Your task to perform on an android device: Open Yahoo.com Image 0: 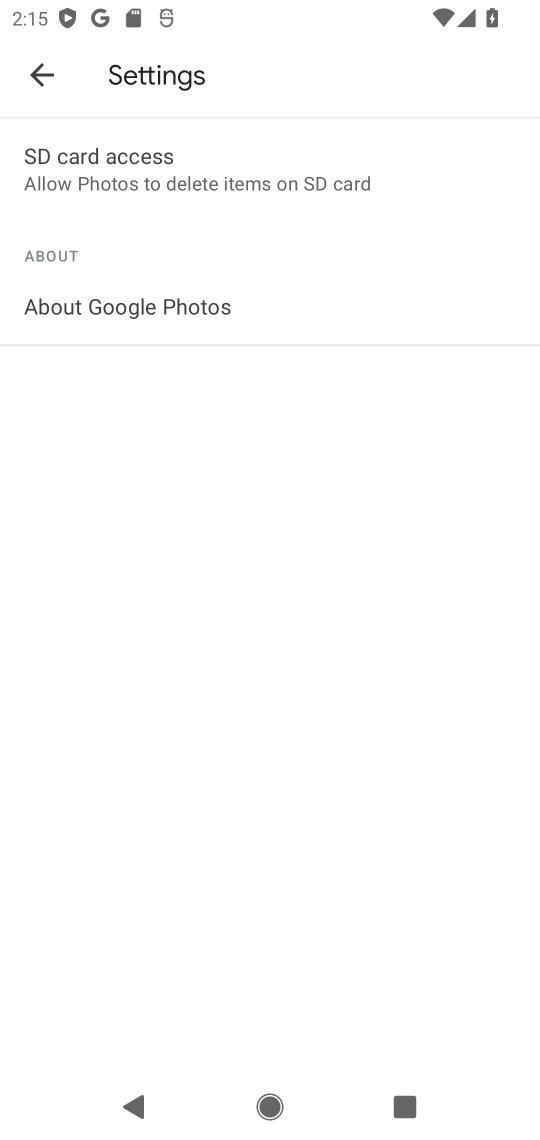
Step 0: press home button
Your task to perform on an android device: Open Yahoo.com Image 1: 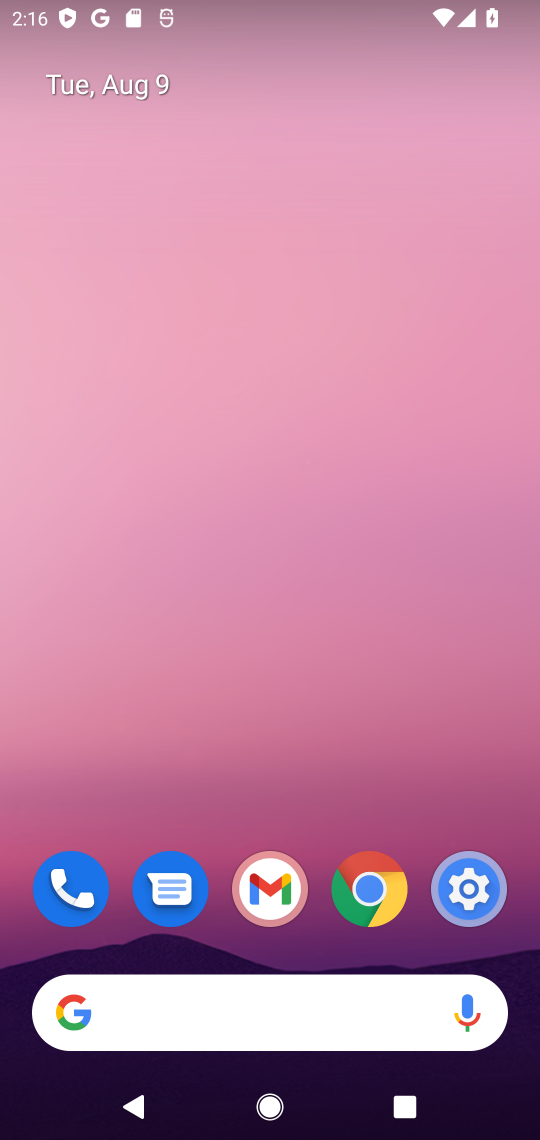
Step 1: click (245, 1006)
Your task to perform on an android device: Open Yahoo.com Image 2: 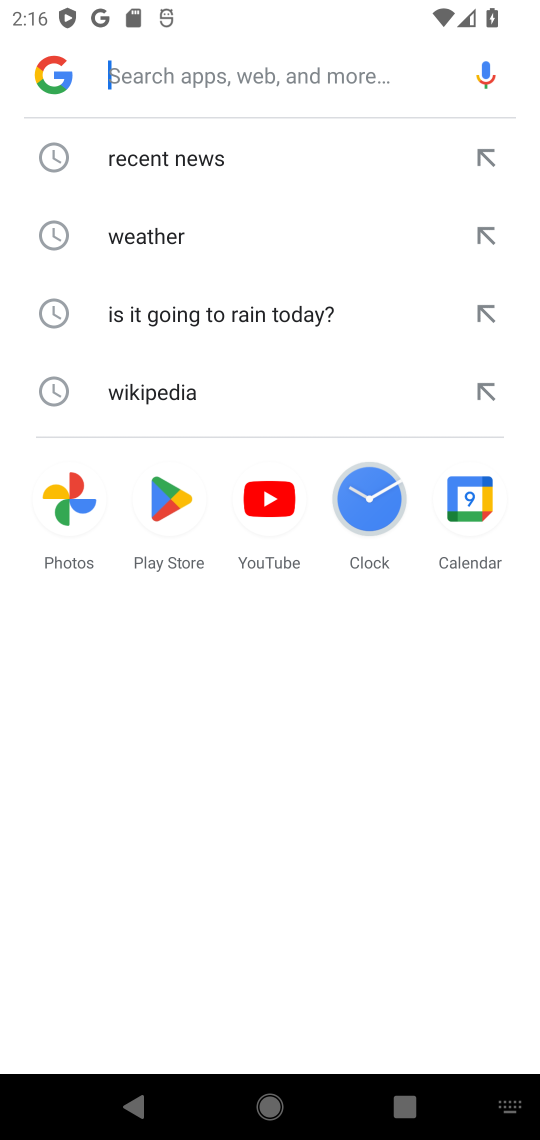
Step 2: type "yahoo.com"
Your task to perform on an android device: Open Yahoo.com Image 3: 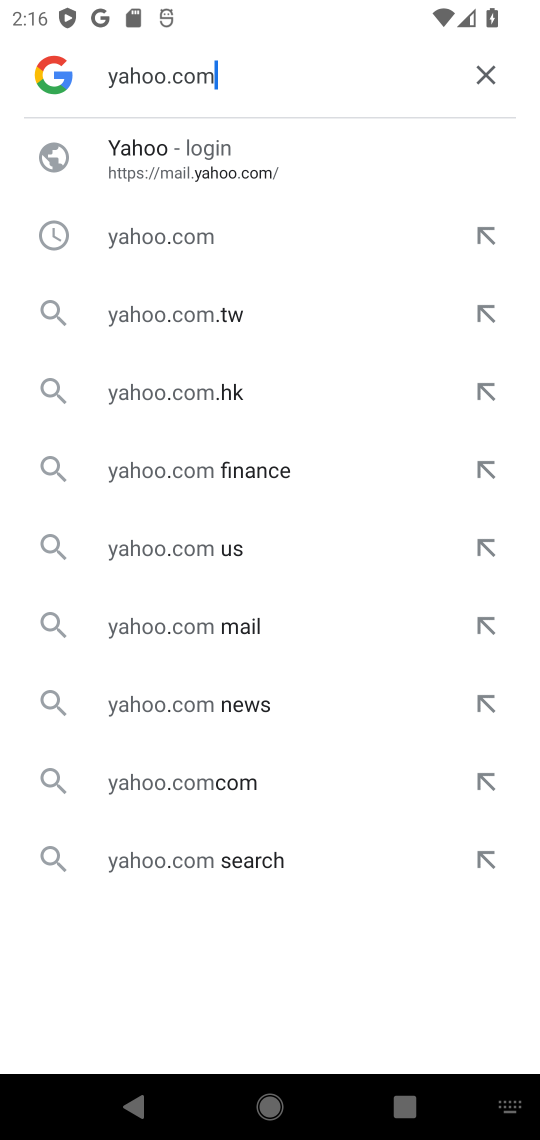
Step 3: click (202, 235)
Your task to perform on an android device: Open Yahoo.com Image 4: 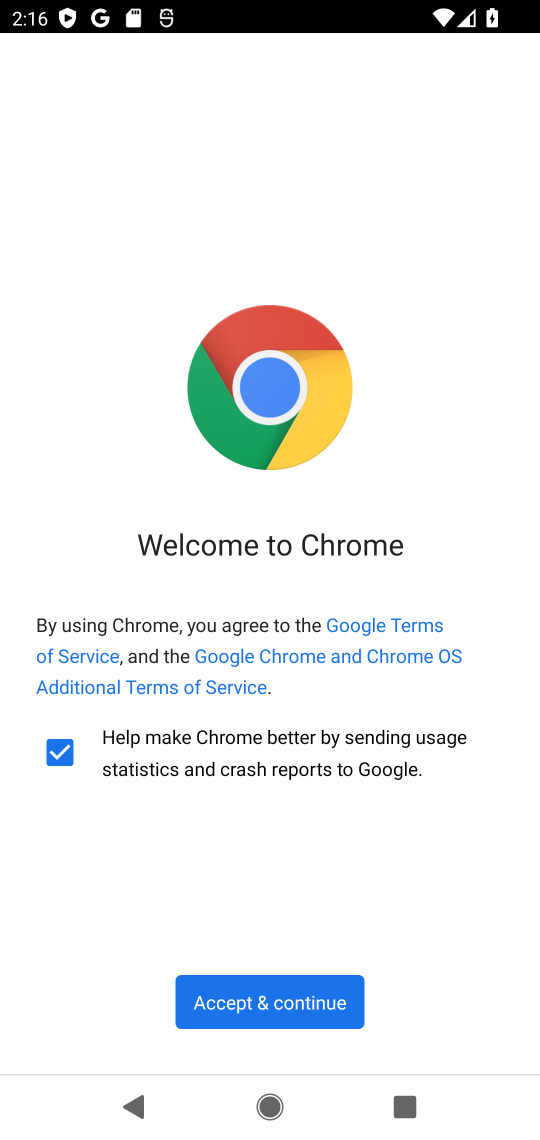
Step 4: click (285, 995)
Your task to perform on an android device: Open Yahoo.com Image 5: 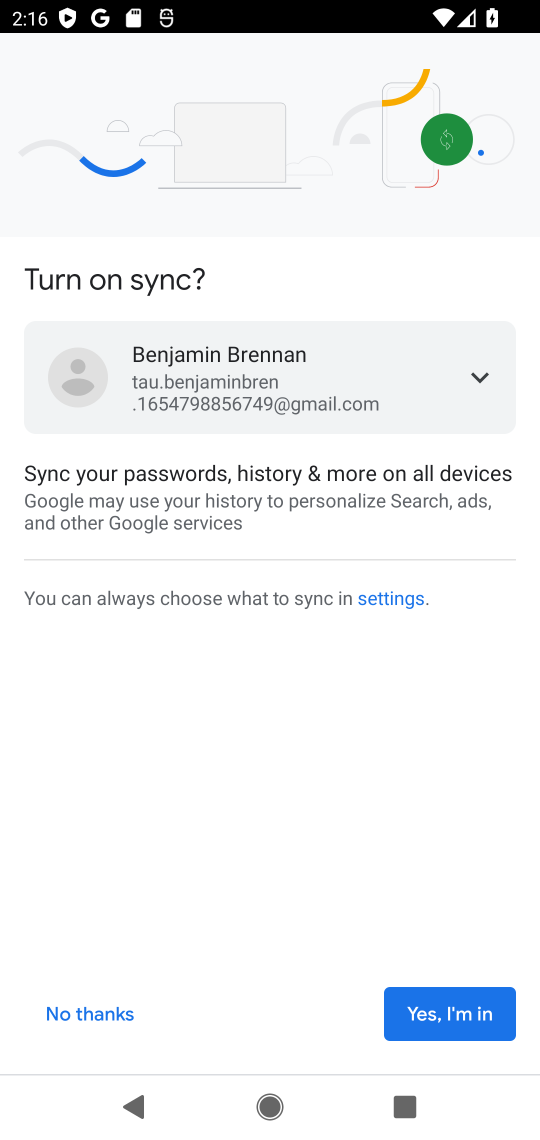
Step 5: click (417, 1021)
Your task to perform on an android device: Open Yahoo.com Image 6: 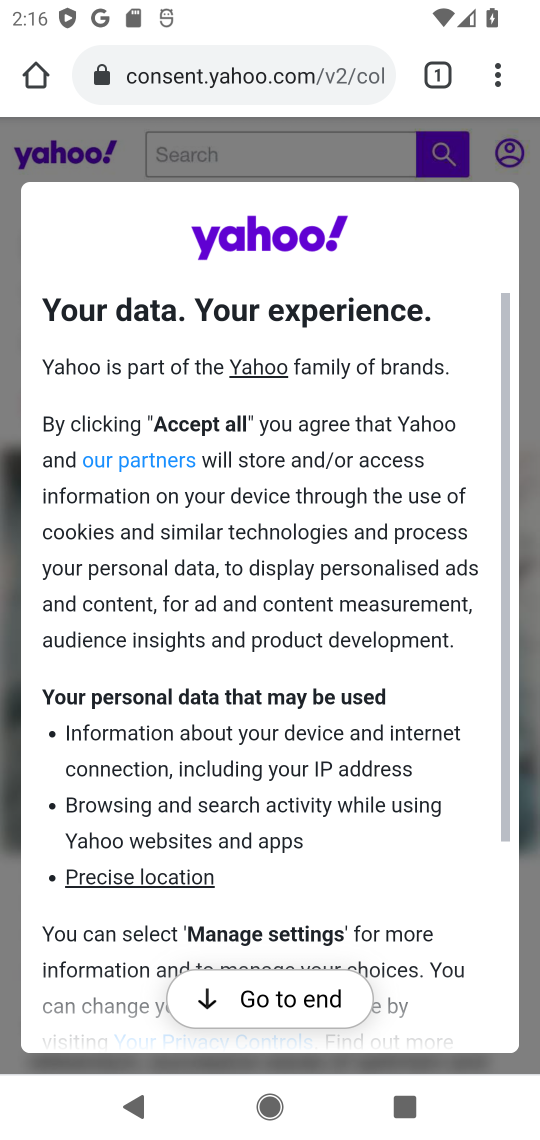
Step 6: click (325, 988)
Your task to perform on an android device: Open Yahoo.com Image 7: 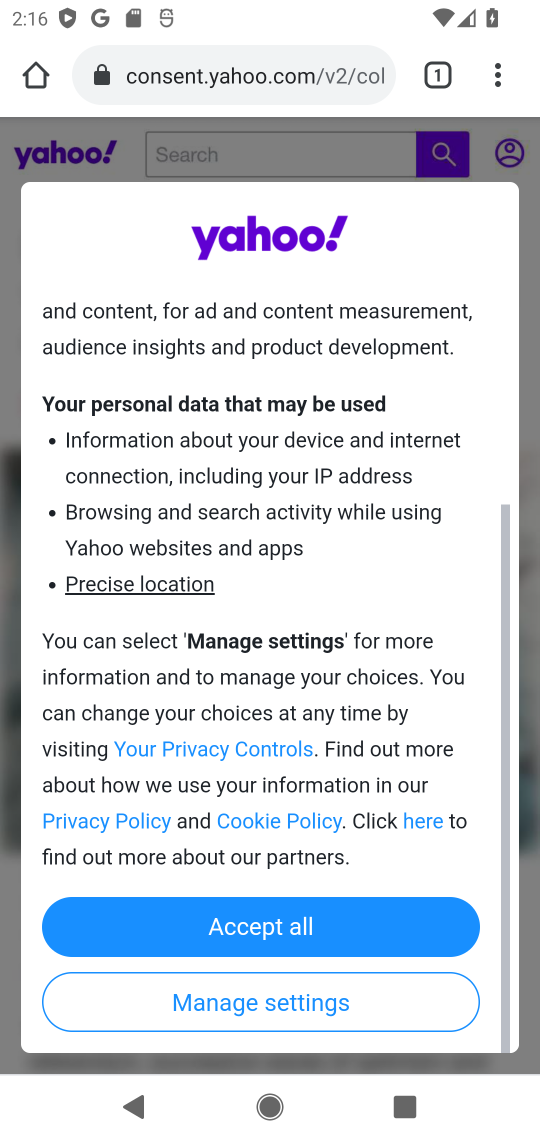
Step 7: click (325, 939)
Your task to perform on an android device: Open Yahoo.com Image 8: 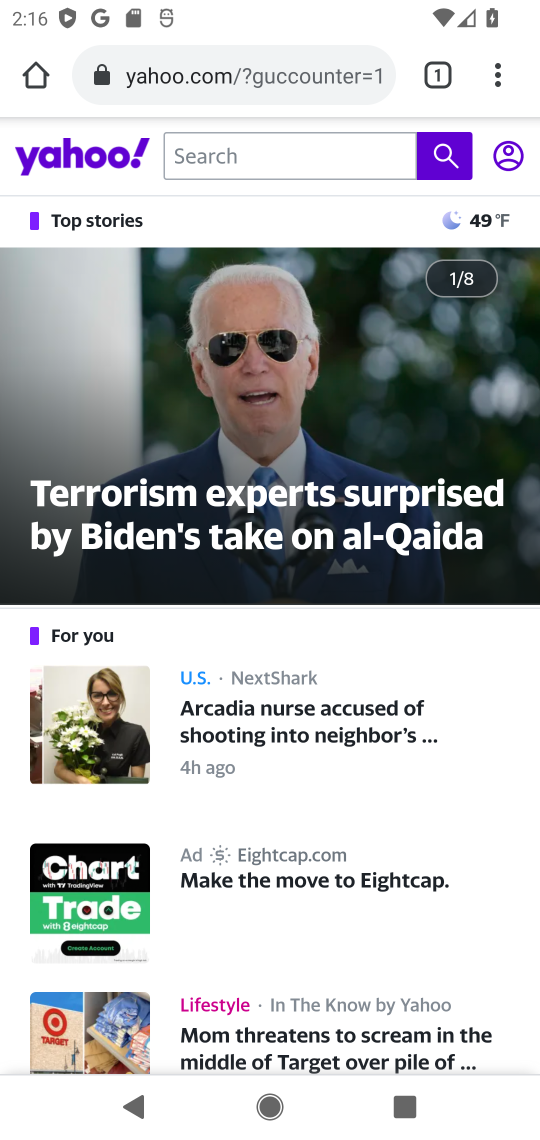
Step 8: click (340, 473)
Your task to perform on an android device: Open Yahoo.com Image 9: 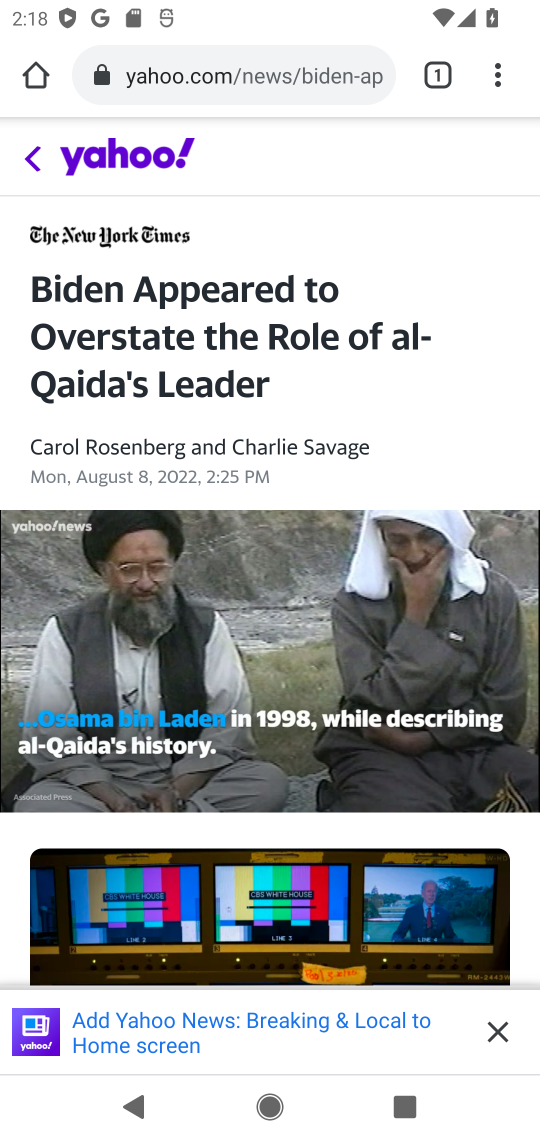
Step 9: task complete